Your task to perform on an android device: Open eBay Image 0: 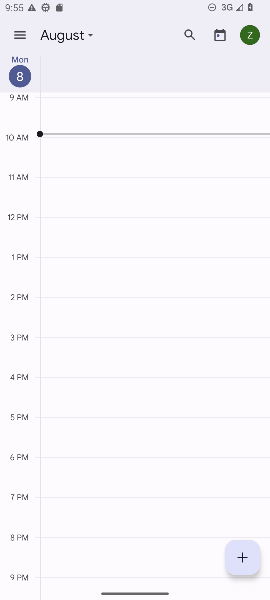
Step 0: press home button
Your task to perform on an android device: Open eBay Image 1: 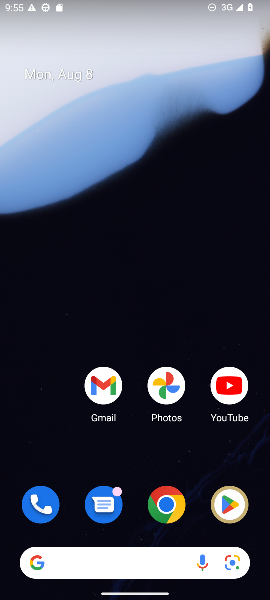
Step 1: drag from (125, 392) to (139, 5)
Your task to perform on an android device: Open eBay Image 2: 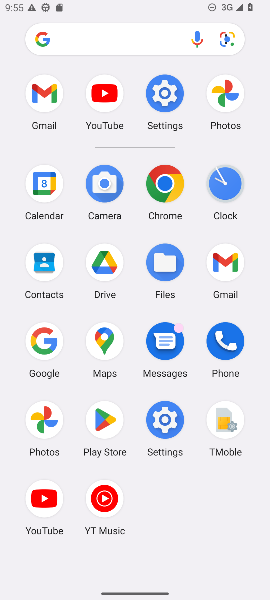
Step 2: click (171, 205)
Your task to perform on an android device: Open eBay Image 3: 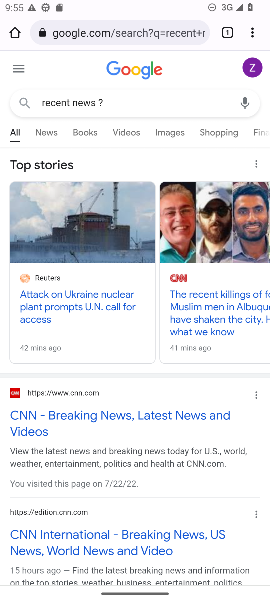
Step 3: click (100, 31)
Your task to perform on an android device: Open eBay Image 4: 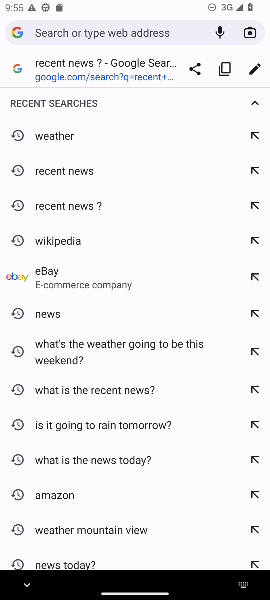
Step 4: type "eBay"
Your task to perform on an android device: Open eBay Image 5: 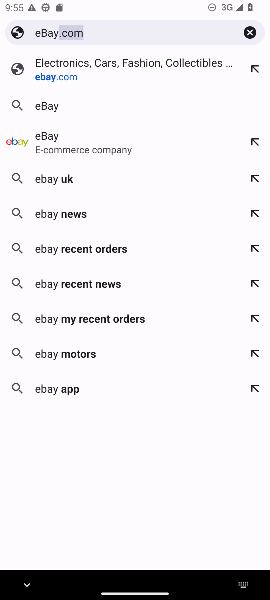
Step 5: click (61, 105)
Your task to perform on an android device: Open eBay Image 6: 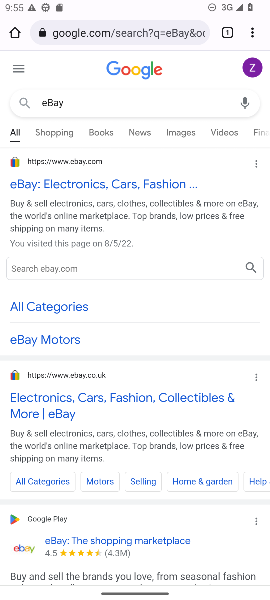
Step 6: task complete